Your task to perform on an android device: check android version Image 0: 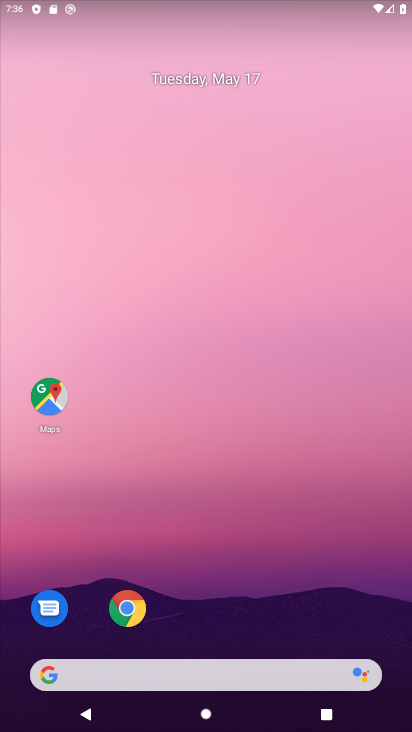
Step 0: drag from (182, 638) to (299, 78)
Your task to perform on an android device: check android version Image 1: 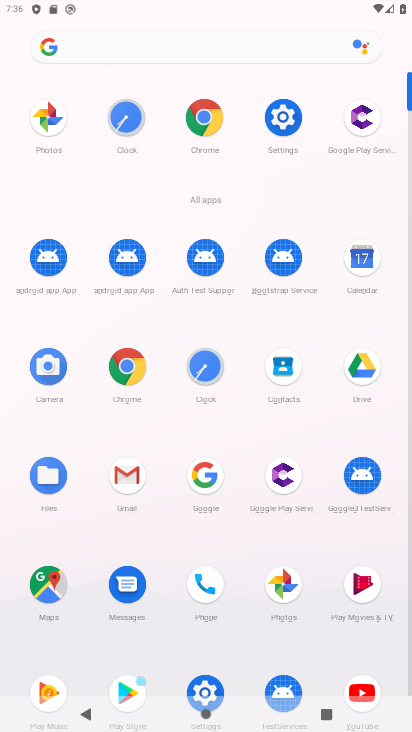
Step 1: click (284, 101)
Your task to perform on an android device: check android version Image 2: 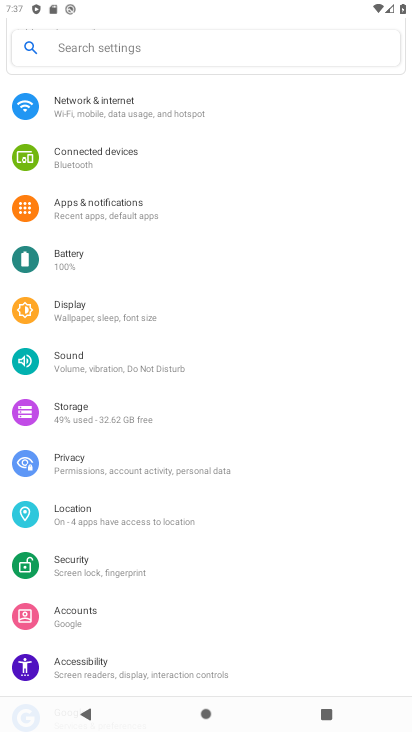
Step 2: drag from (67, 664) to (146, 225)
Your task to perform on an android device: check android version Image 3: 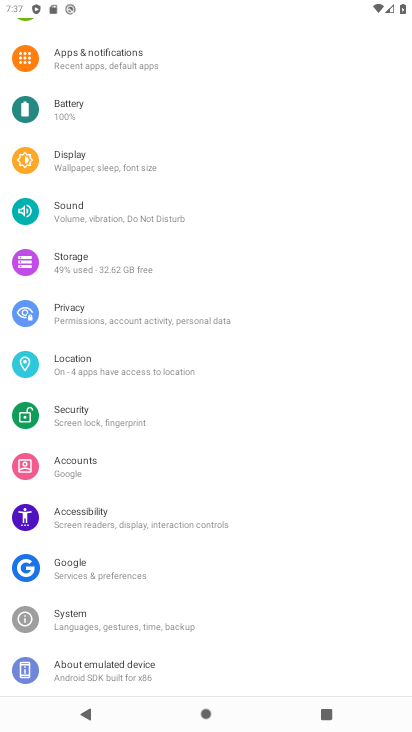
Step 3: click (165, 678)
Your task to perform on an android device: check android version Image 4: 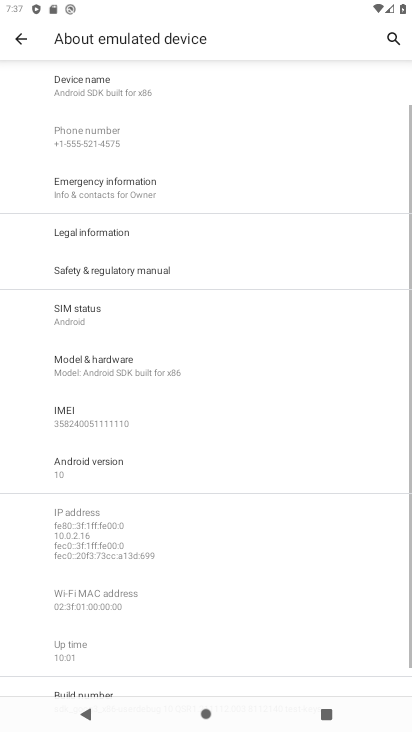
Step 4: click (95, 472)
Your task to perform on an android device: check android version Image 5: 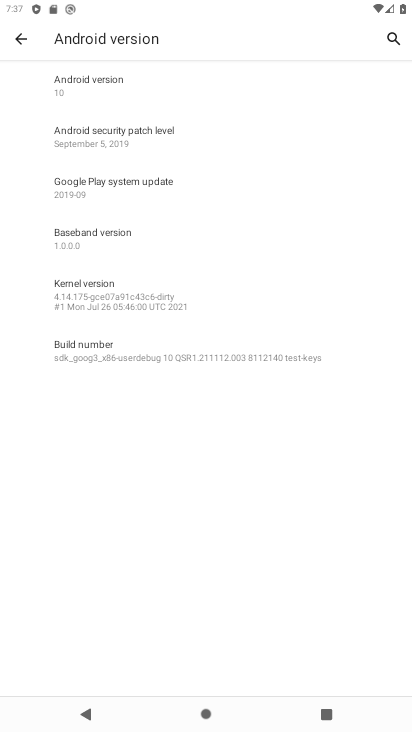
Step 5: task complete